Your task to perform on an android device: read, delete, or share a saved page in the chrome app Image 0: 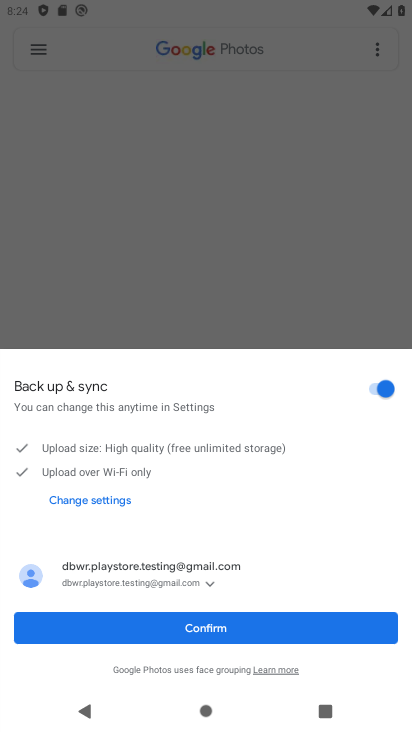
Step 0: press home button
Your task to perform on an android device: read, delete, or share a saved page in the chrome app Image 1: 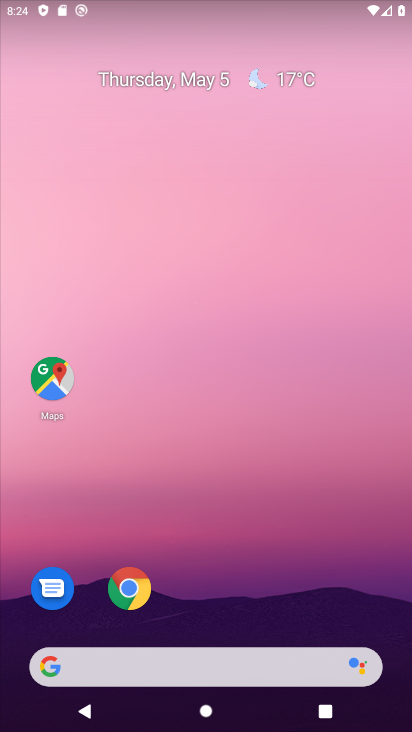
Step 1: drag from (243, 453) to (263, 296)
Your task to perform on an android device: read, delete, or share a saved page in the chrome app Image 2: 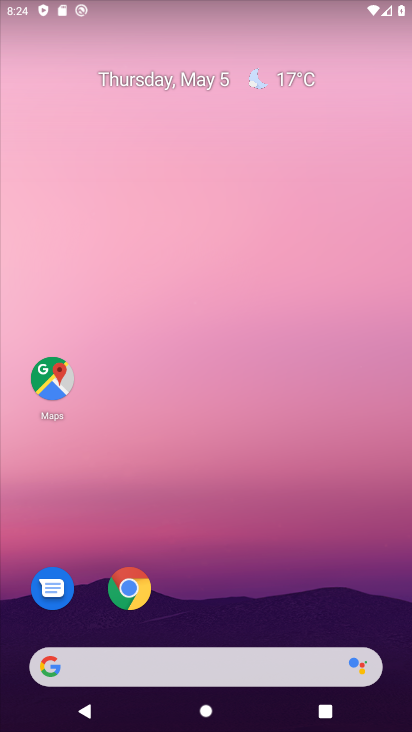
Step 2: drag from (220, 614) to (295, 260)
Your task to perform on an android device: read, delete, or share a saved page in the chrome app Image 3: 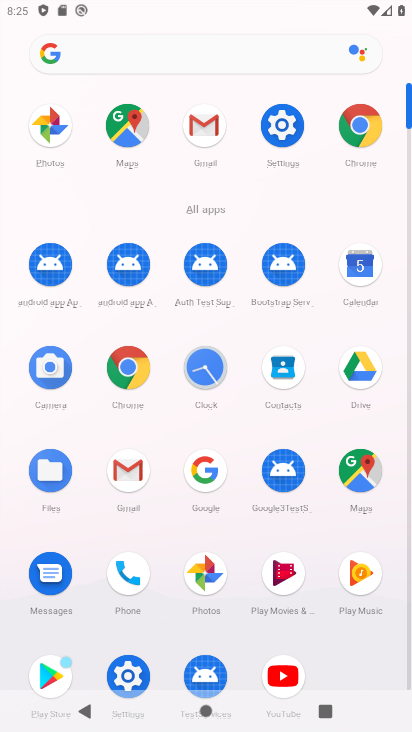
Step 3: click (129, 360)
Your task to perform on an android device: read, delete, or share a saved page in the chrome app Image 4: 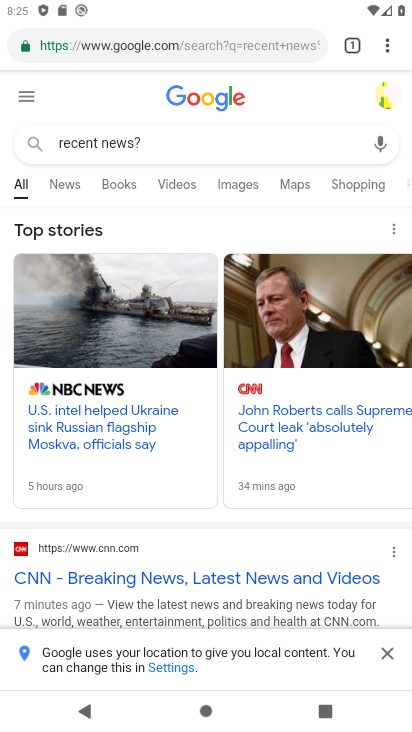
Step 4: click (390, 48)
Your task to perform on an android device: read, delete, or share a saved page in the chrome app Image 5: 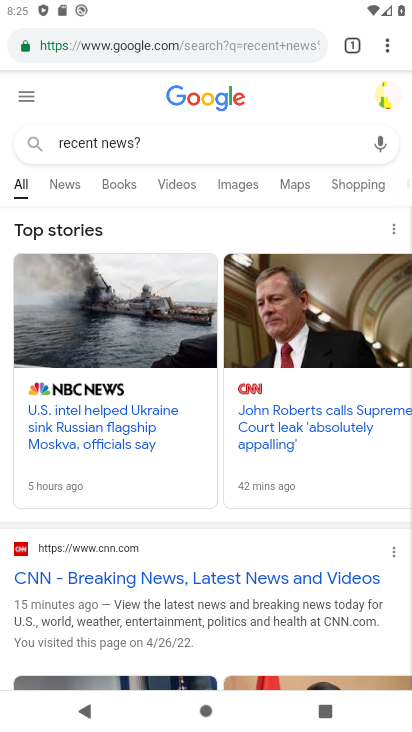
Step 5: click (377, 45)
Your task to perform on an android device: read, delete, or share a saved page in the chrome app Image 6: 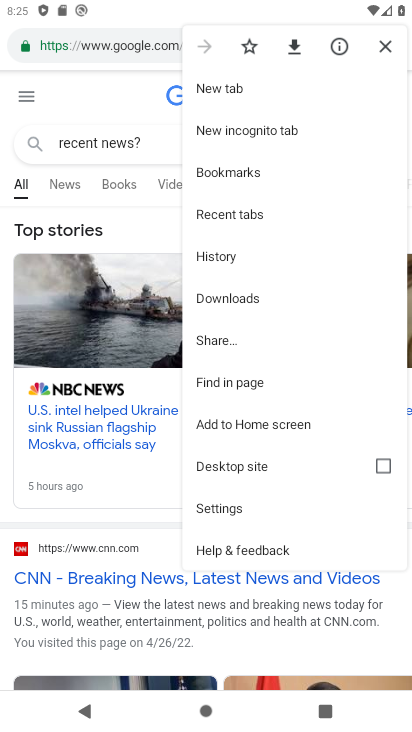
Step 6: click (256, 296)
Your task to perform on an android device: read, delete, or share a saved page in the chrome app Image 7: 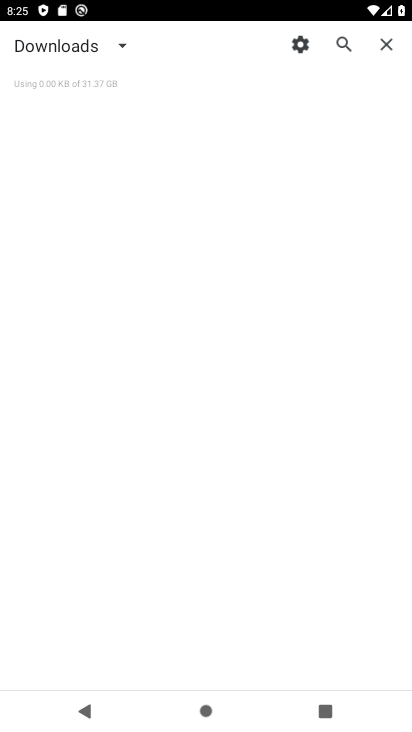
Step 7: click (121, 43)
Your task to perform on an android device: read, delete, or share a saved page in the chrome app Image 8: 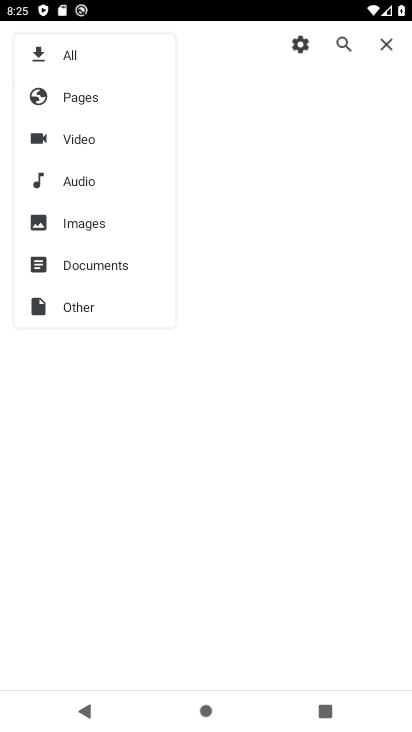
Step 8: click (87, 96)
Your task to perform on an android device: read, delete, or share a saved page in the chrome app Image 9: 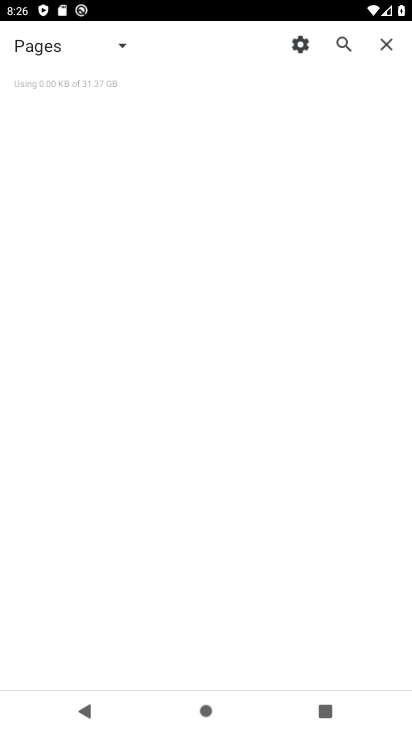
Step 9: task complete